Your task to perform on an android device: turn on wifi Image 0: 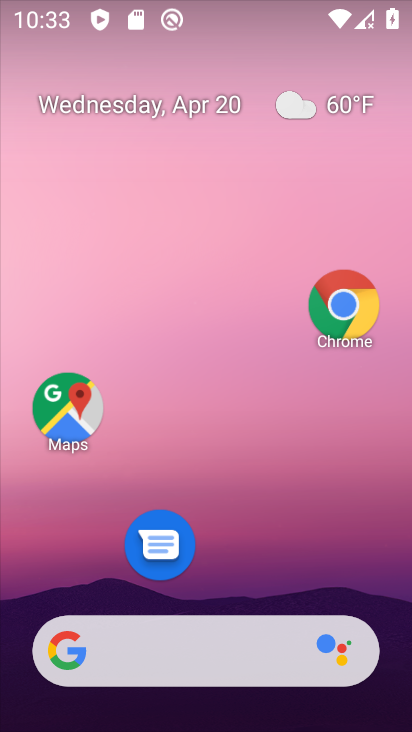
Step 0: drag from (246, 325) to (245, 215)
Your task to perform on an android device: turn on wifi Image 1: 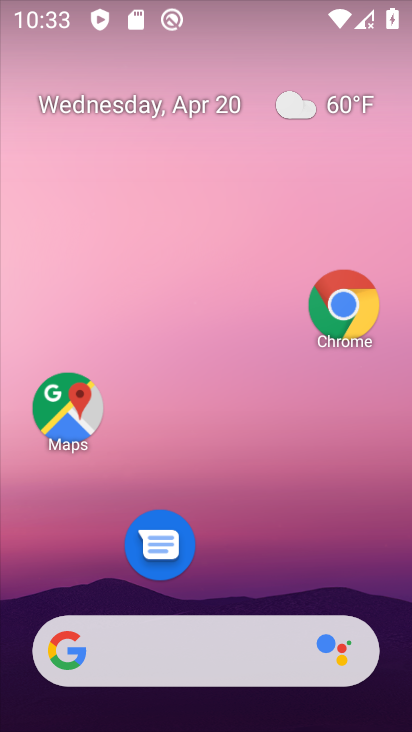
Step 1: drag from (236, 544) to (285, 166)
Your task to perform on an android device: turn on wifi Image 2: 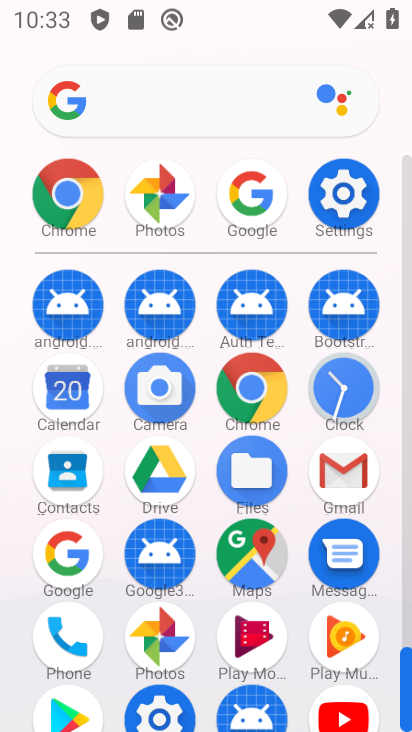
Step 2: click (341, 207)
Your task to perform on an android device: turn on wifi Image 3: 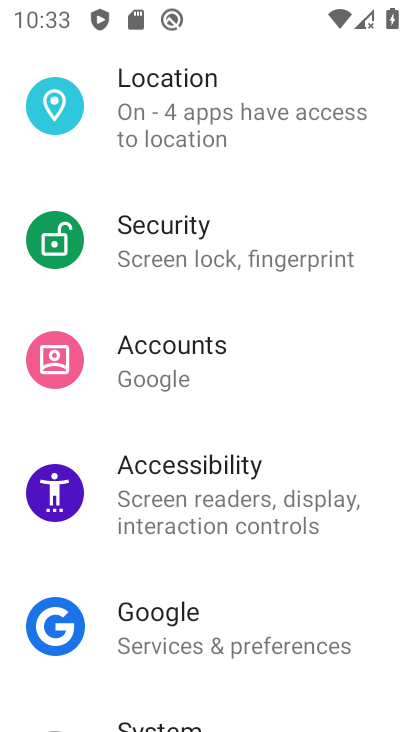
Step 3: drag from (279, 209) to (276, 442)
Your task to perform on an android device: turn on wifi Image 4: 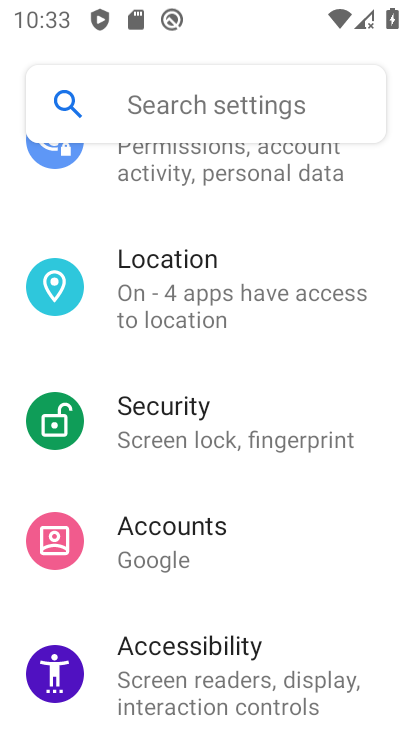
Step 4: drag from (259, 268) to (262, 471)
Your task to perform on an android device: turn on wifi Image 5: 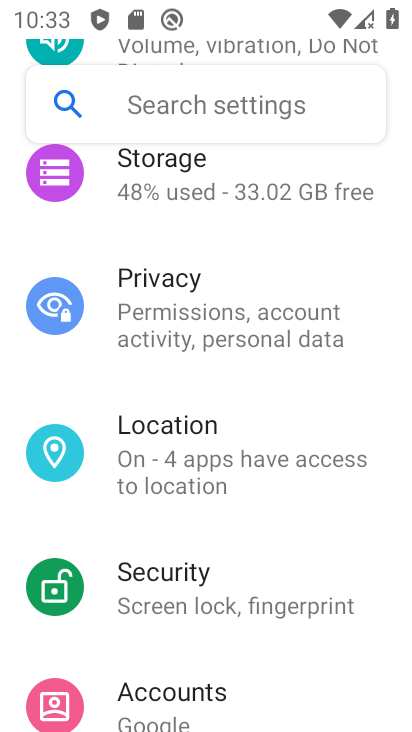
Step 5: drag from (244, 345) to (240, 432)
Your task to perform on an android device: turn on wifi Image 6: 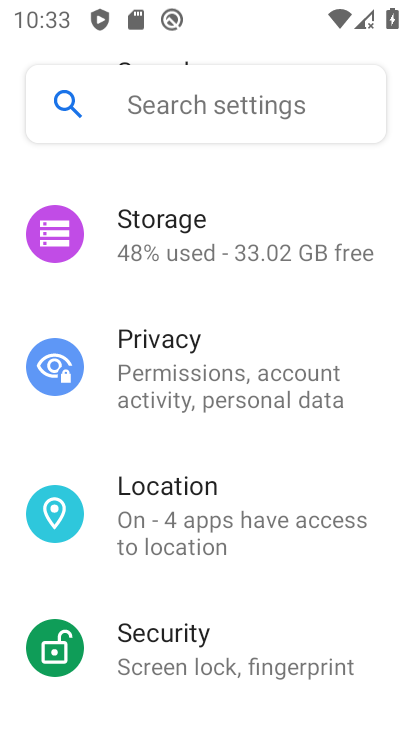
Step 6: drag from (243, 362) to (238, 510)
Your task to perform on an android device: turn on wifi Image 7: 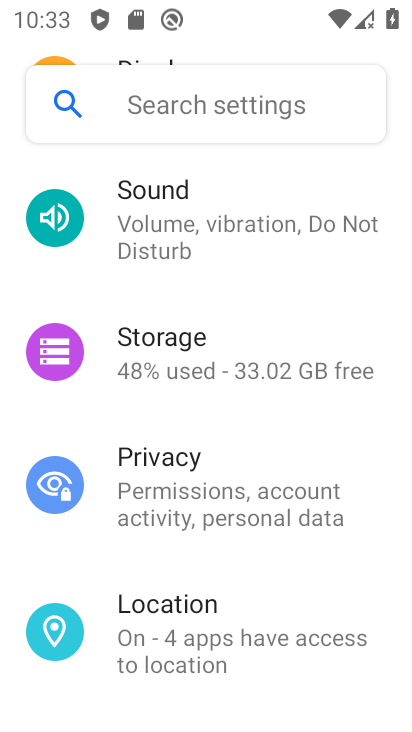
Step 7: drag from (231, 283) to (233, 555)
Your task to perform on an android device: turn on wifi Image 8: 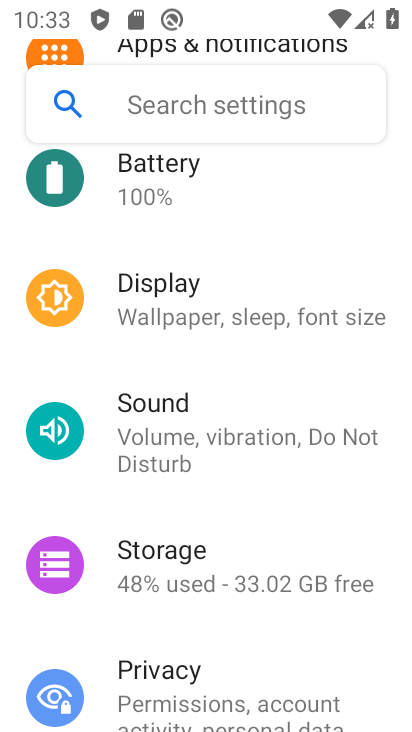
Step 8: drag from (214, 362) to (216, 541)
Your task to perform on an android device: turn on wifi Image 9: 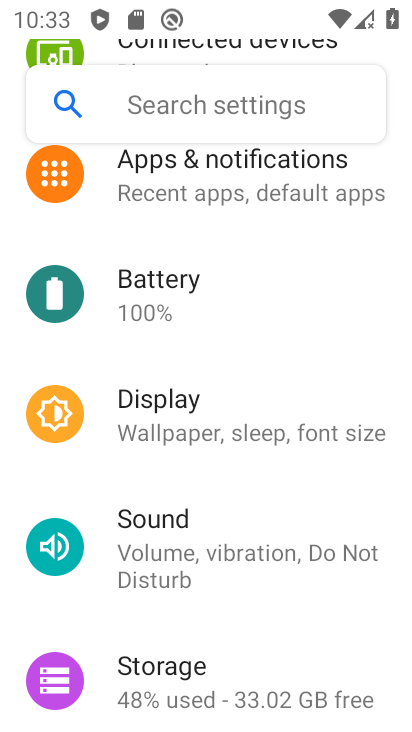
Step 9: drag from (231, 311) to (236, 514)
Your task to perform on an android device: turn on wifi Image 10: 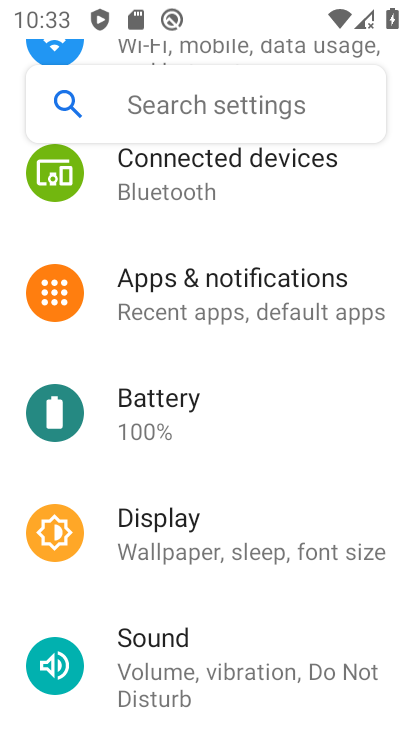
Step 10: drag from (209, 375) to (210, 524)
Your task to perform on an android device: turn on wifi Image 11: 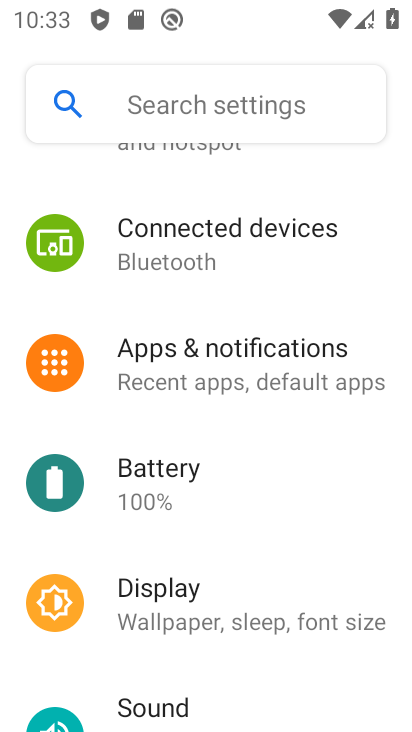
Step 11: click (211, 540)
Your task to perform on an android device: turn on wifi Image 12: 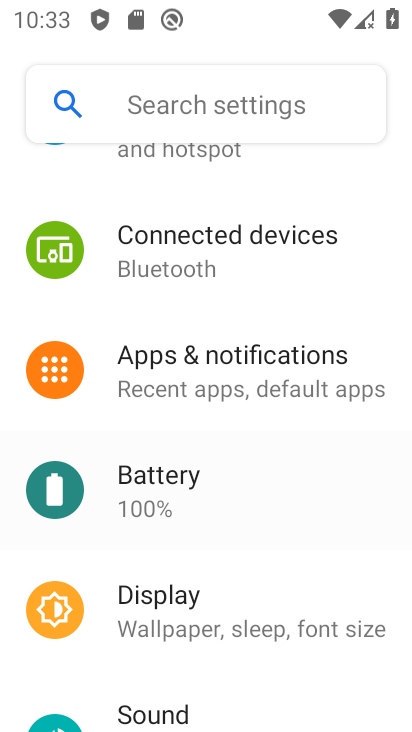
Step 12: drag from (224, 285) to (224, 583)
Your task to perform on an android device: turn on wifi Image 13: 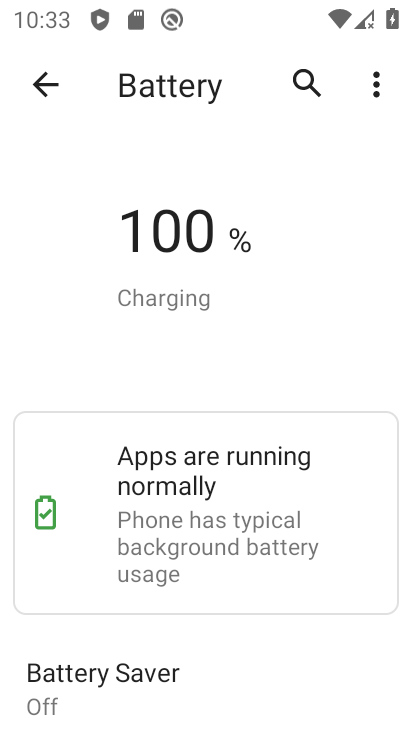
Step 13: click (46, 92)
Your task to perform on an android device: turn on wifi Image 14: 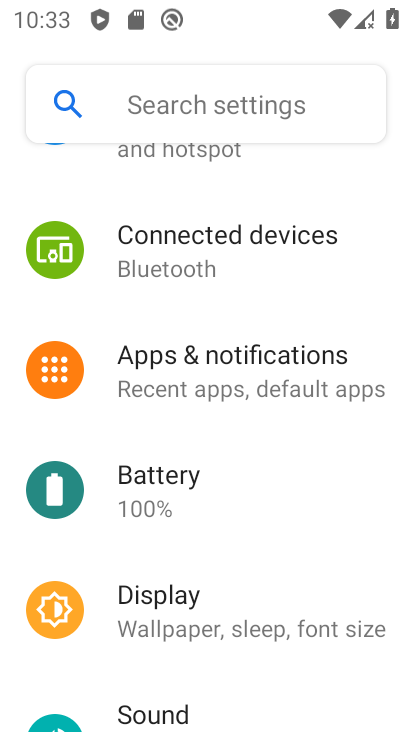
Step 14: drag from (227, 259) to (232, 482)
Your task to perform on an android device: turn on wifi Image 15: 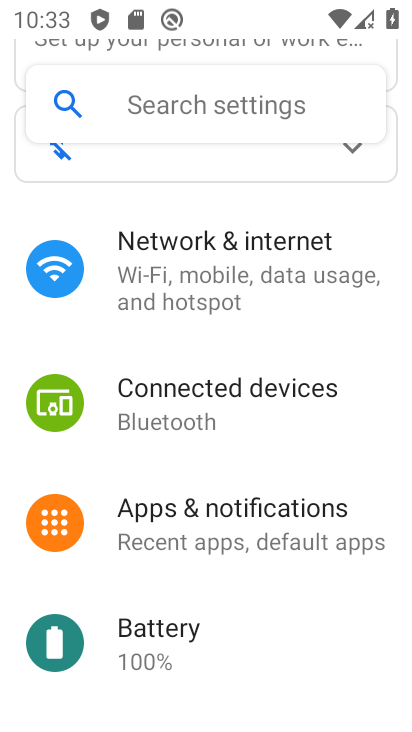
Step 15: click (208, 259)
Your task to perform on an android device: turn on wifi Image 16: 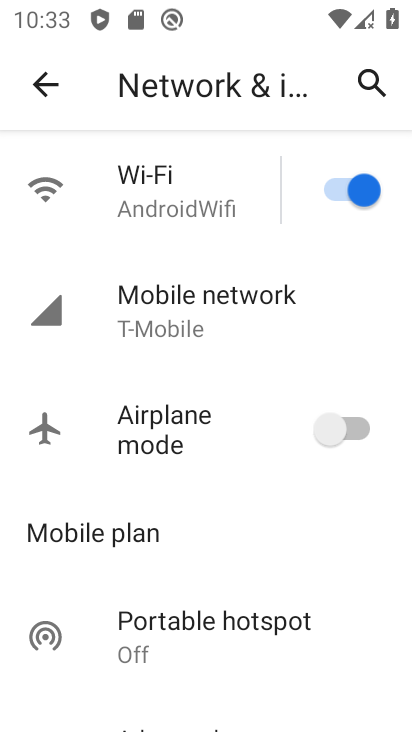
Step 16: task complete